Your task to perform on an android device: turn notification dots on Image 0: 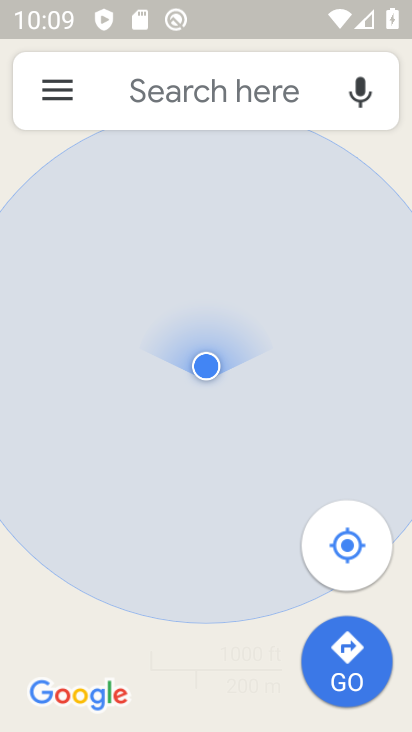
Step 0: press home button
Your task to perform on an android device: turn notification dots on Image 1: 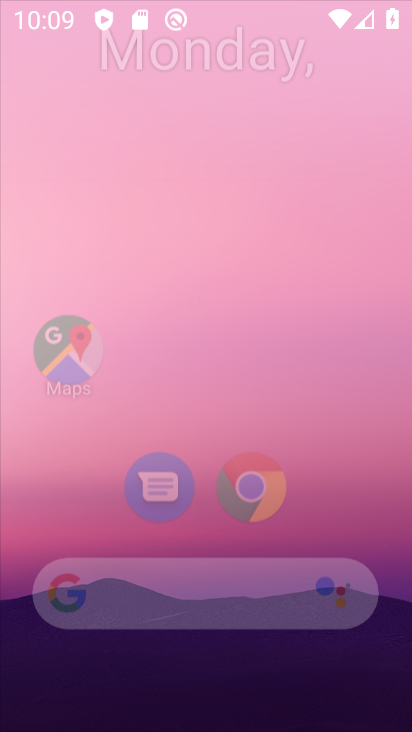
Step 1: click (301, 271)
Your task to perform on an android device: turn notification dots on Image 2: 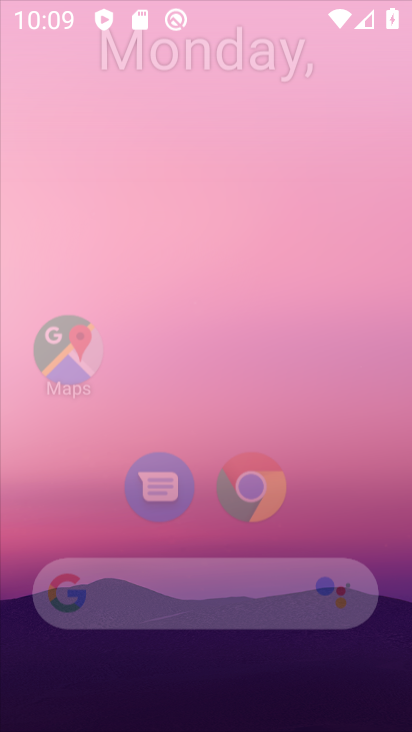
Step 2: drag from (275, 283) to (247, 247)
Your task to perform on an android device: turn notification dots on Image 3: 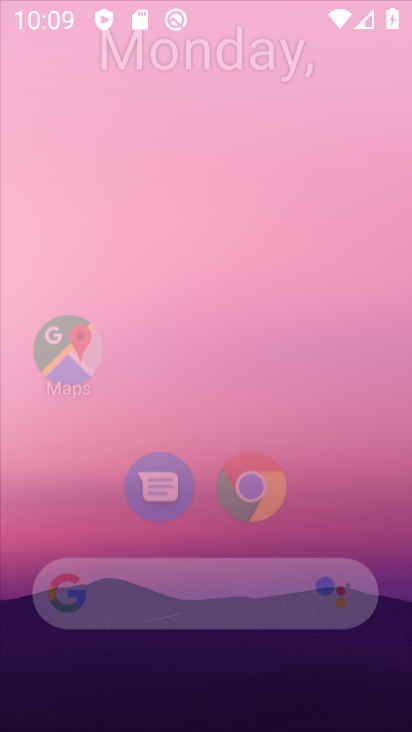
Step 3: drag from (179, 535) to (286, 101)
Your task to perform on an android device: turn notification dots on Image 4: 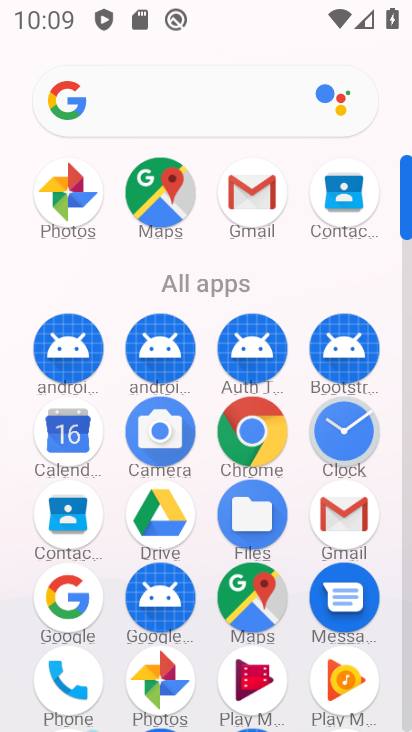
Step 4: drag from (144, 628) to (220, 366)
Your task to perform on an android device: turn notification dots on Image 5: 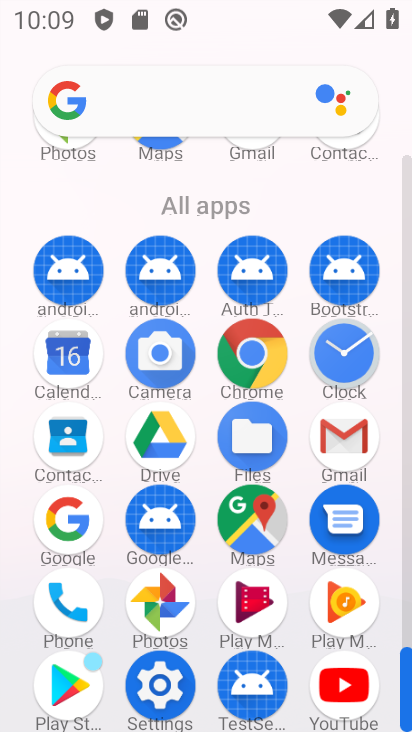
Step 5: click (163, 679)
Your task to perform on an android device: turn notification dots on Image 6: 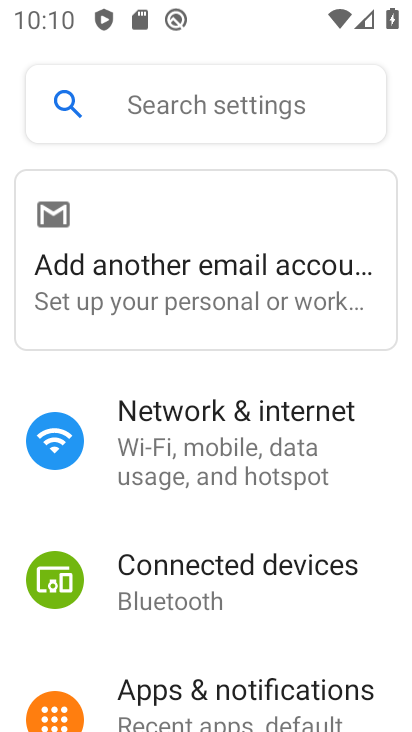
Step 6: drag from (210, 631) to (295, 373)
Your task to perform on an android device: turn notification dots on Image 7: 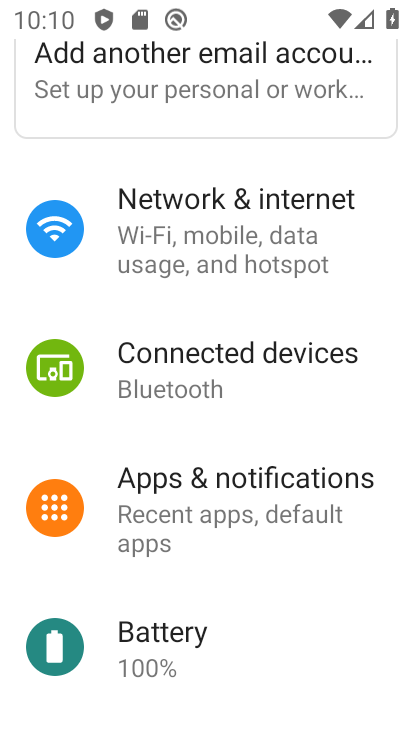
Step 7: click (268, 498)
Your task to perform on an android device: turn notification dots on Image 8: 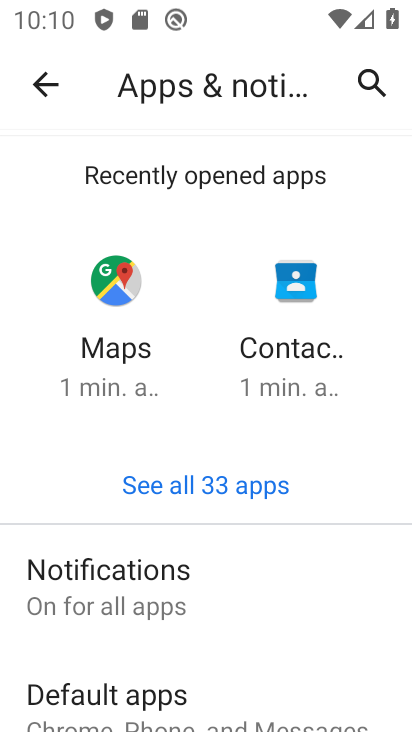
Step 8: click (215, 591)
Your task to perform on an android device: turn notification dots on Image 9: 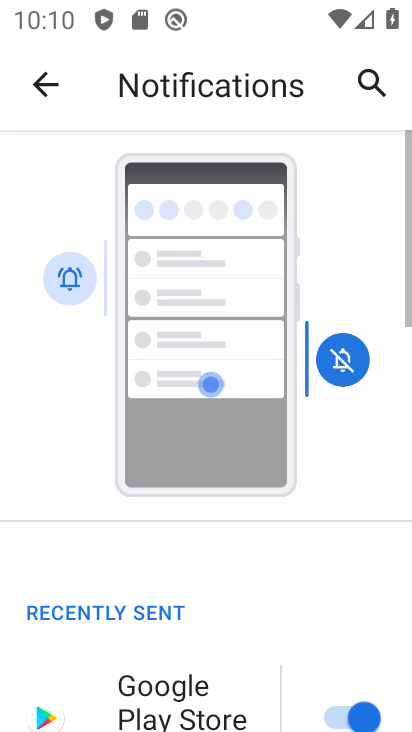
Step 9: drag from (199, 618) to (327, 278)
Your task to perform on an android device: turn notification dots on Image 10: 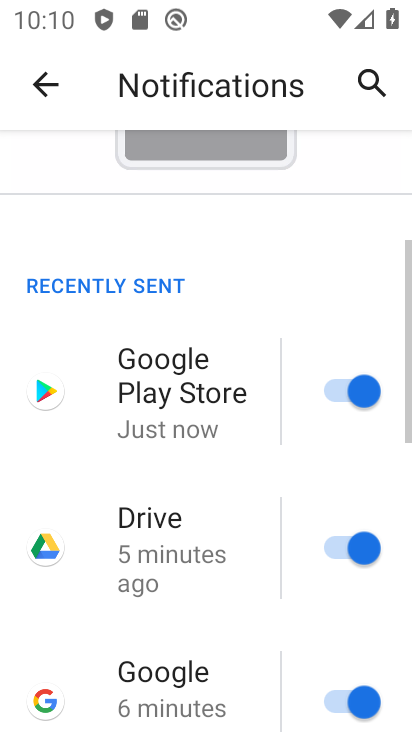
Step 10: drag from (255, 599) to (375, 167)
Your task to perform on an android device: turn notification dots on Image 11: 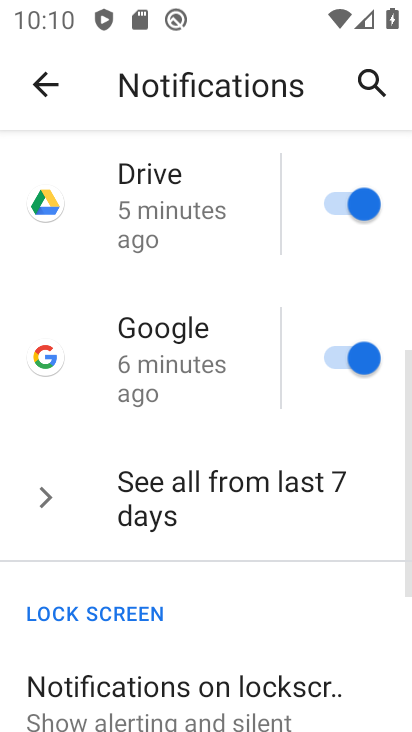
Step 11: drag from (301, 615) to (383, 286)
Your task to perform on an android device: turn notification dots on Image 12: 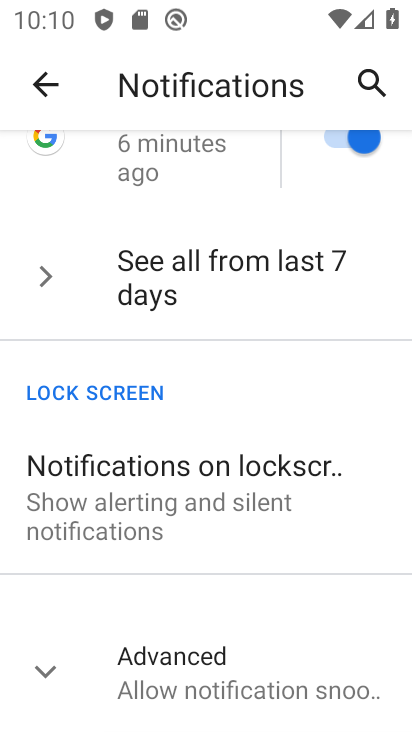
Step 12: click (261, 704)
Your task to perform on an android device: turn notification dots on Image 13: 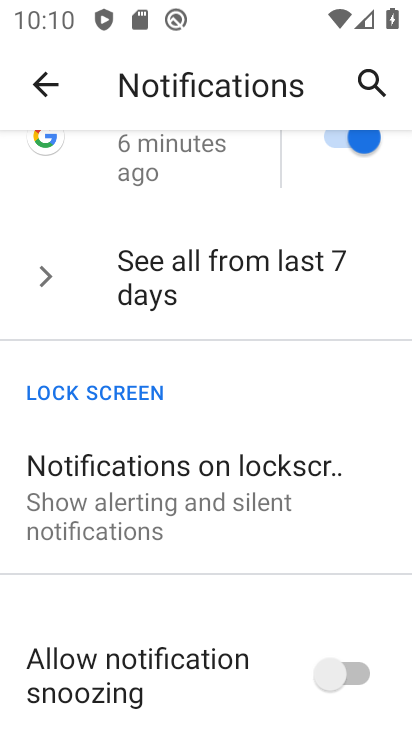
Step 13: task complete